Your task to perform on an android device: Search for Mexican restaurants on Maps Image 0: 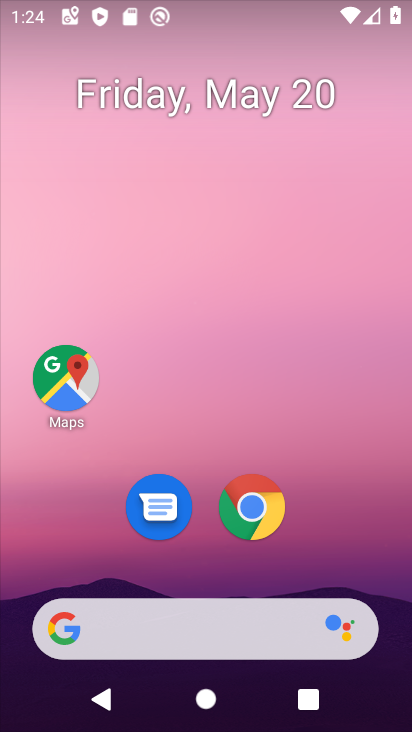
Step 0: drag from (230, 722) to (242, 197)
Your task to perform on an android device: Search for Mexican restaurants on Maps Image 1: 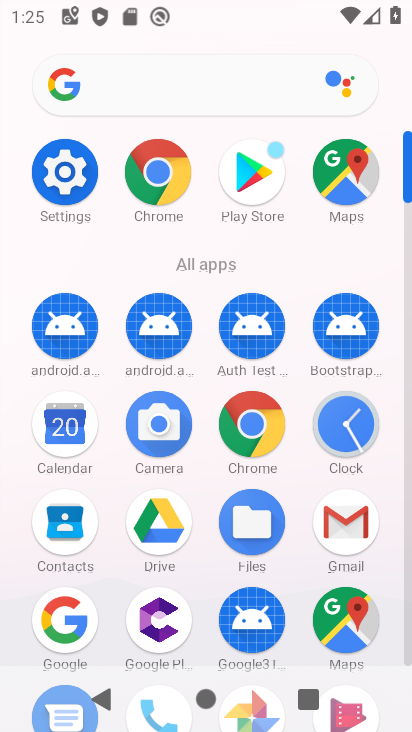
Step 1: click (353, 594)
Your task to perform on an android device: Search for Mexican restaurants on Maps Image 2: 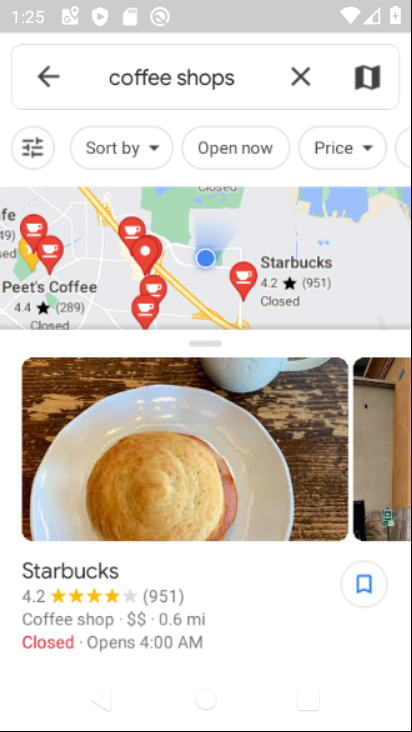
Step 2: click (349, 624)
Your task to perform on an android device: Search for Mexican restaurants on Maps Image 3: 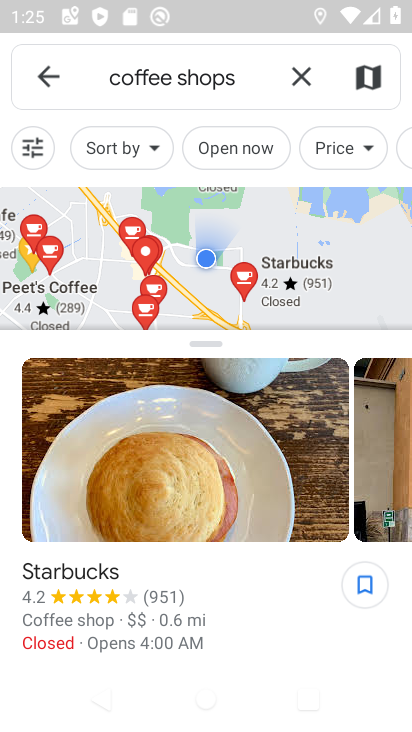
Step 3: click (302, 73)
Your task to perform on an android device: Search for Mexican restaurants on Maps Image 4: 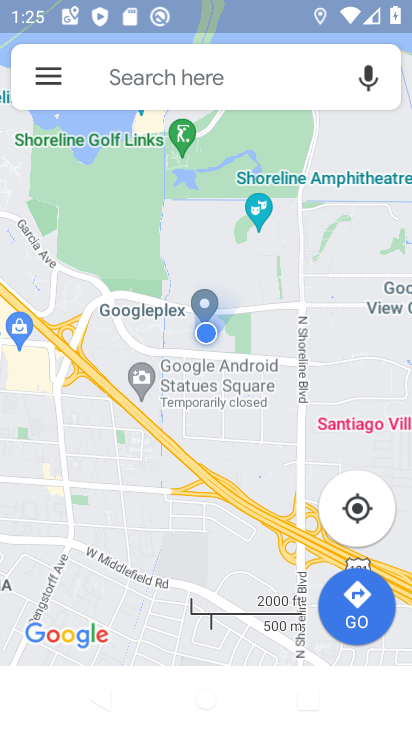
Step 4: click (221, 82)
Your task to perform on an android device: Search for Mexican restaurants on Maps Image 5: 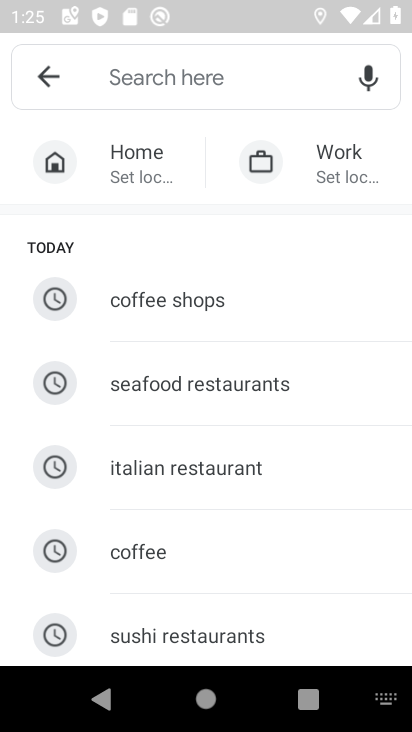
Step 5: type "Mexican restaurants"
Your task to perform on an android device: Search for Mexican restaurants on Maps Image 6: 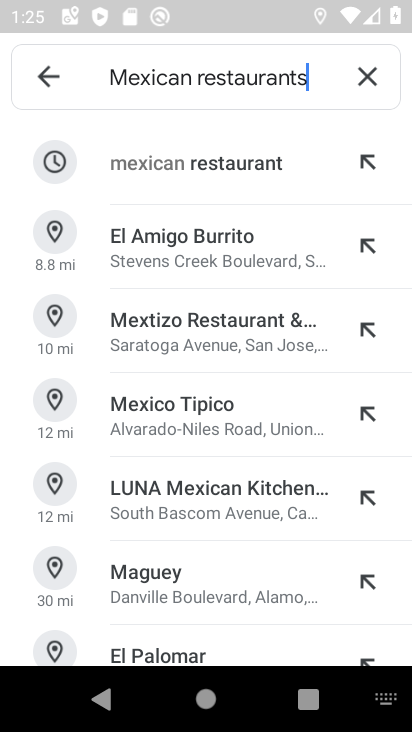
Step 6: click (254, 163)
Your task to perform on an android device: Search for Mexican restaurants on Maps Image 7: 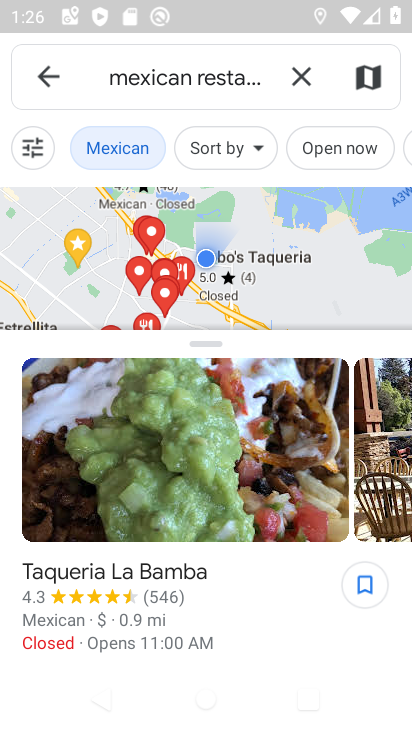
Step 7: task complete